Your task to perform on an android device: toggle data saver in the chrome app Image 0: 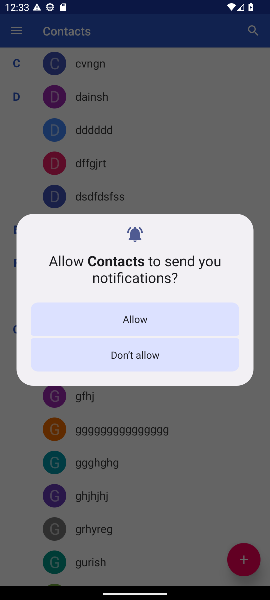
Step 0: press back button
Your task to perform on an android device: toggle data saver in the chrome app Image 1: 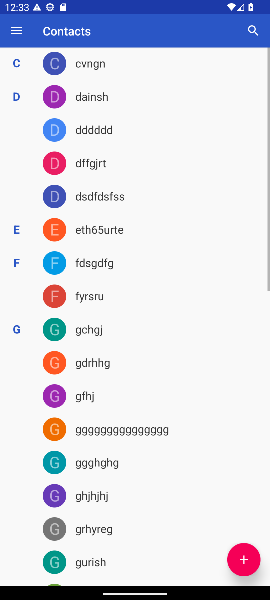
Step 1: press home button
Your task to perform on an android device: toggle data saver in the chrome app Image 2: 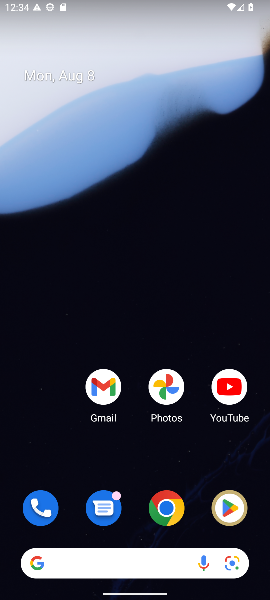
Step 2: click (173, 509)
Your task to perform on an android device: toggle data saver in the chrome app Image 3: 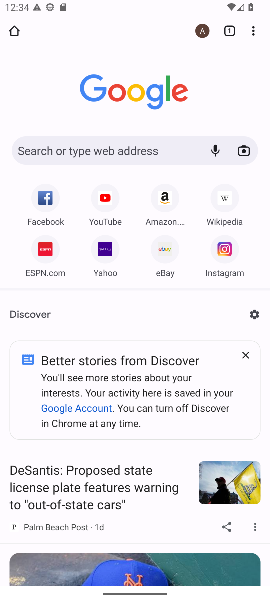
Step 3: click (165, 509)
Your task to perform on an android device: toggle data saver in the chrome app Image 4: 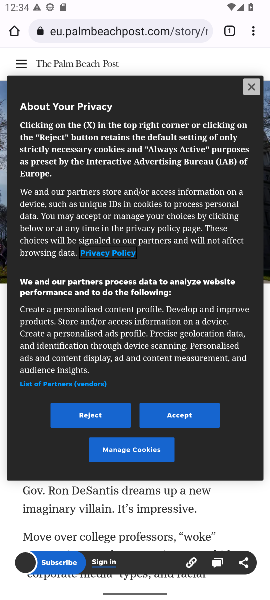
Step 4: press back button
Your task to perform on an android device: toggle data saver in the chrome app Image 5: 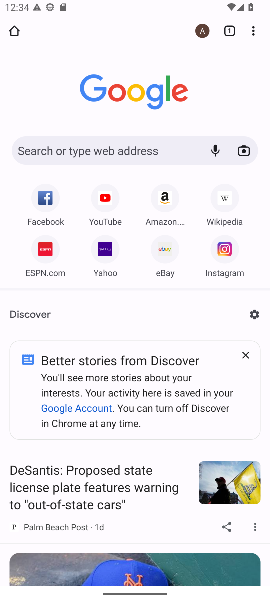
Step 5: click (251, 26)
Your task to perform on an android device: toggle data saver in the chrome app Image 6: 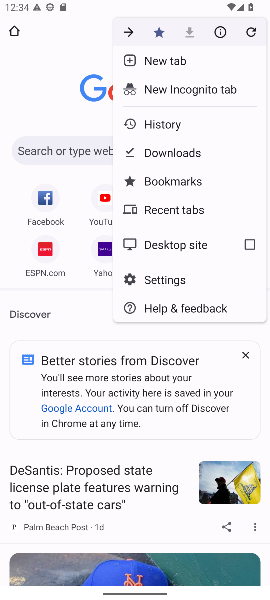
Step 6: click (172, 276)
Your task to perform on an android device: toggle data saver in the chrome app Image 7: 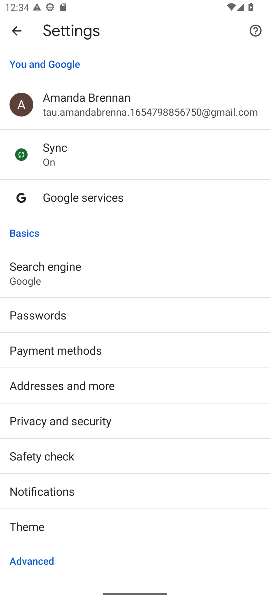
Step 7: task complete